Your task to perform on an android device: Add acer predator to the cart on bestbuy.com Image 0: 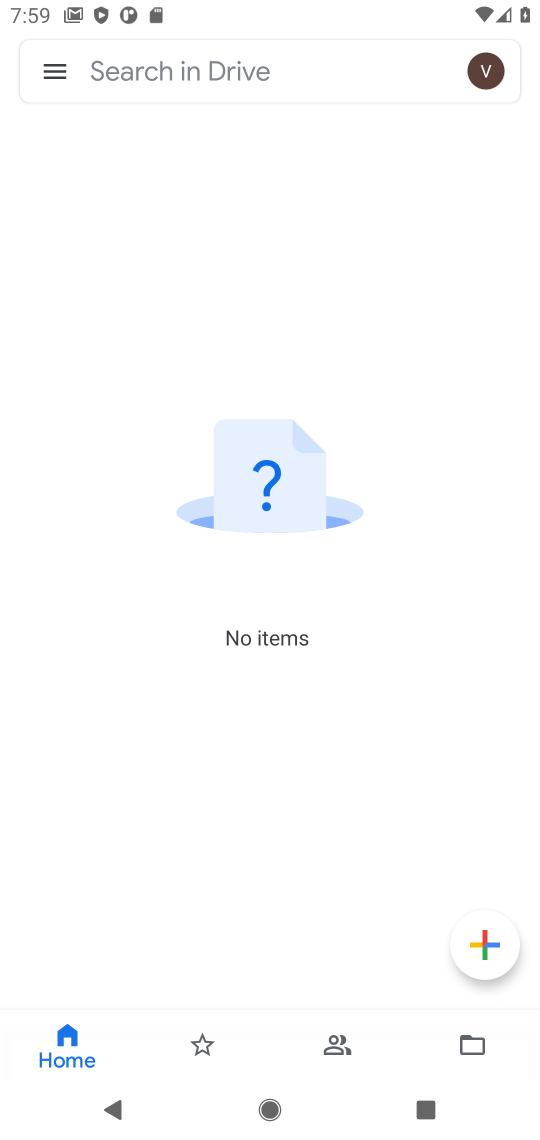
Step 0: press home button
Your task to perform on an android device: Add acer predator to the cart on bestbuy.com Image 1: 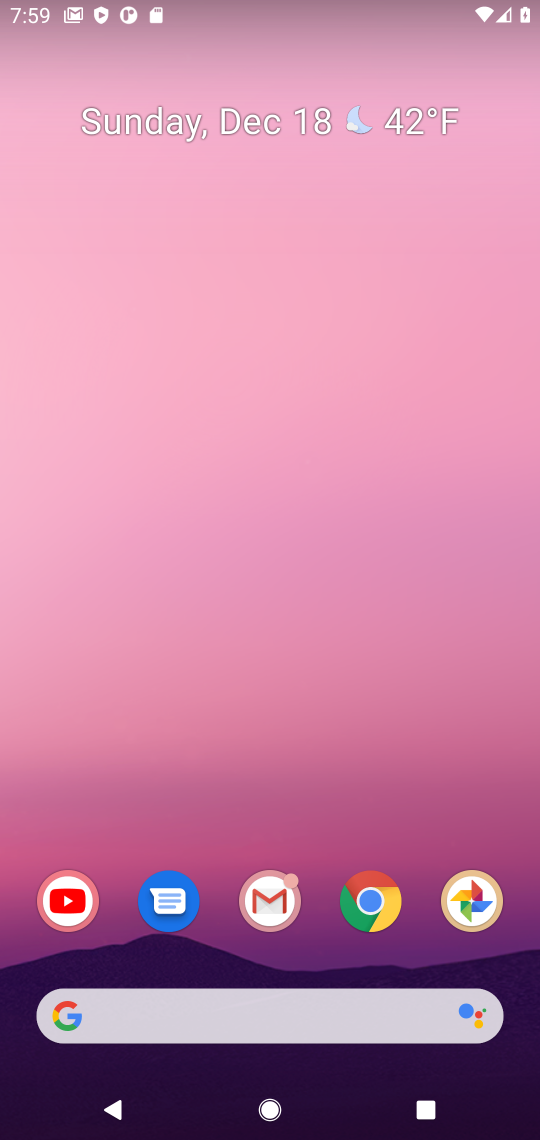
Step 1: click (340, 1002)
Your task to perform on an android device: Add acer predator to the cart on bestbuy.com Image 2: 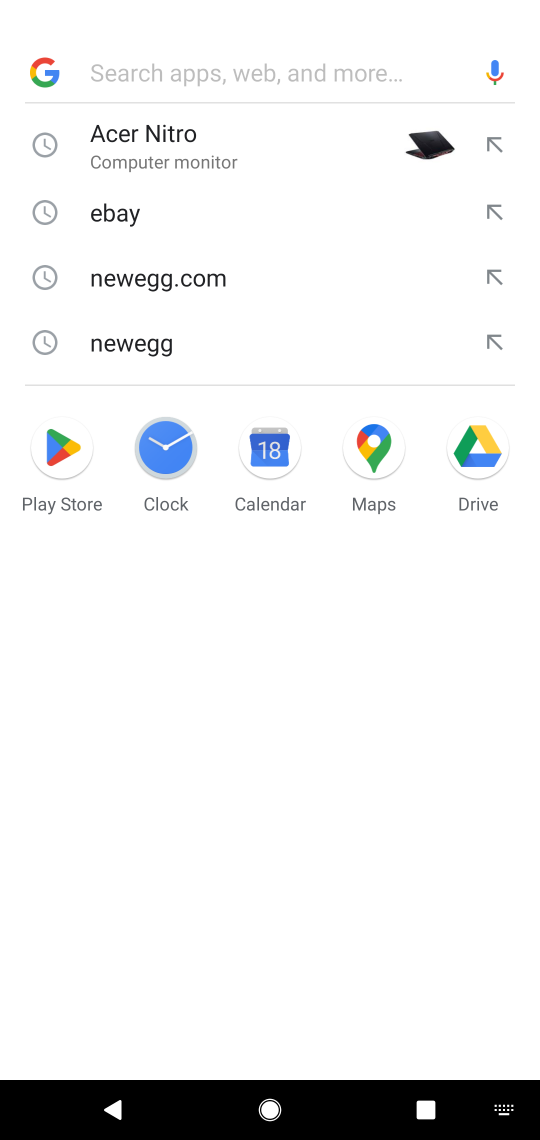
Step 2: type "bestbuy"
Your task to perform on an android device: Add acer predator to the cart on bestbuy.com Image 3: 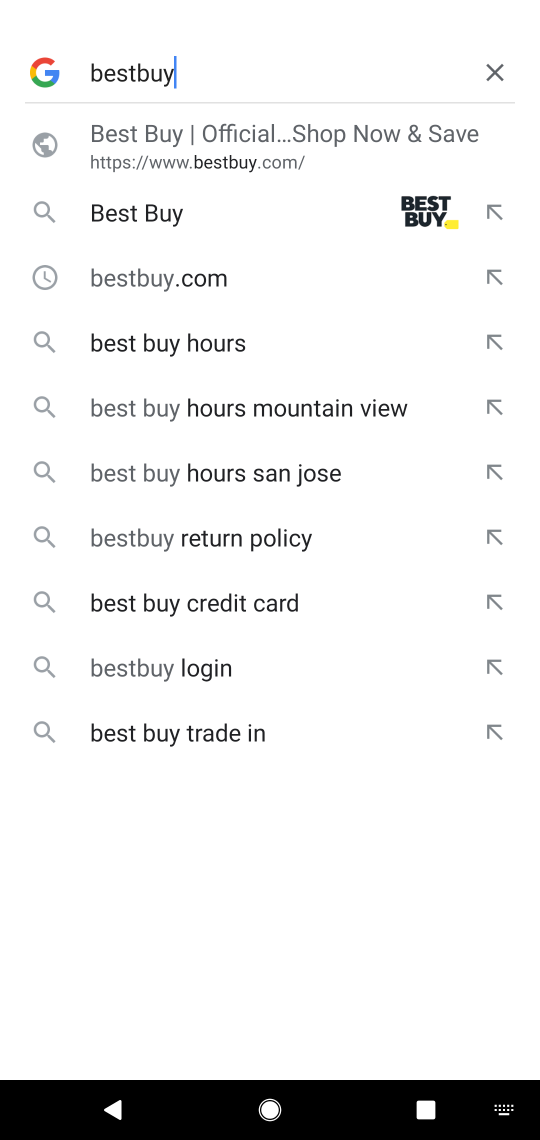
Step 3: click (104, 168)
Your task to perform on an android device: Add acer predator to the cart on bestbuy.com Image 4: 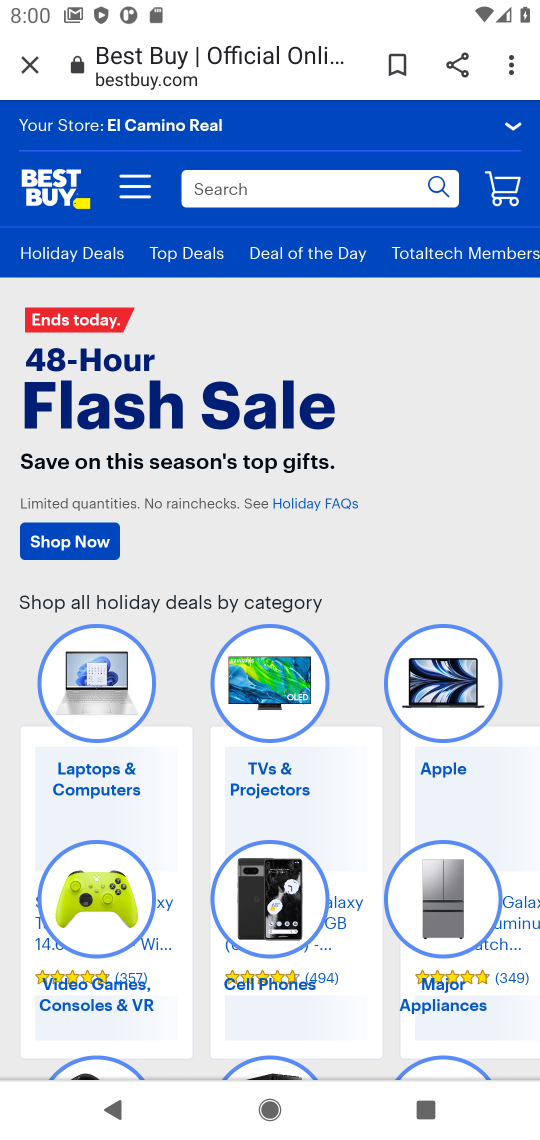
Step 4: click (231, 179)
Your task to perform on an android device: Add acer predator to the cart on bestbuy.com Image 5: 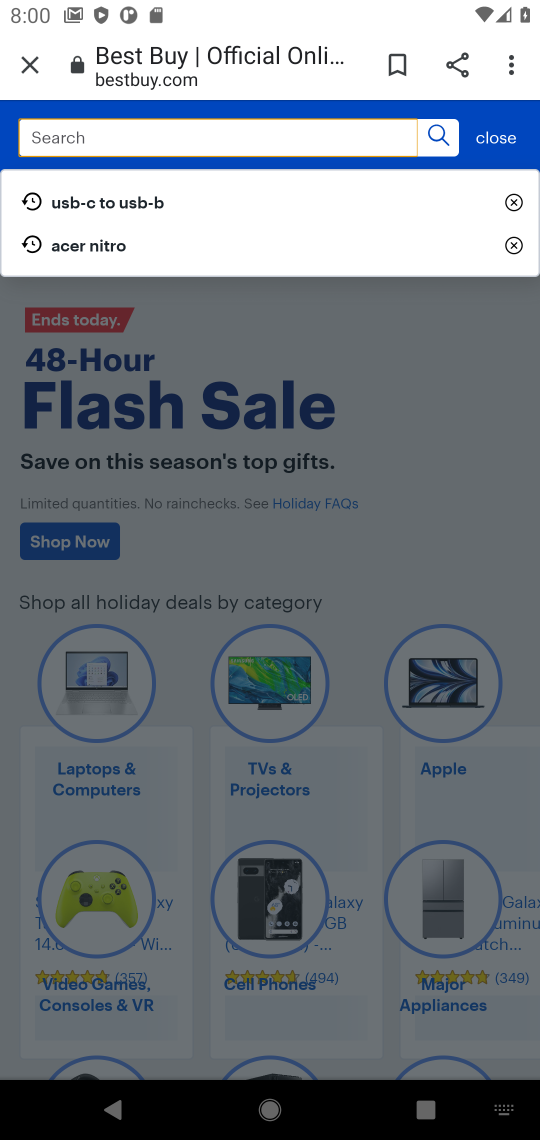
Step 5: type "predator"
Your task to perform on an android device: Add acer predator to the cart on bestbuy.com Image 6: 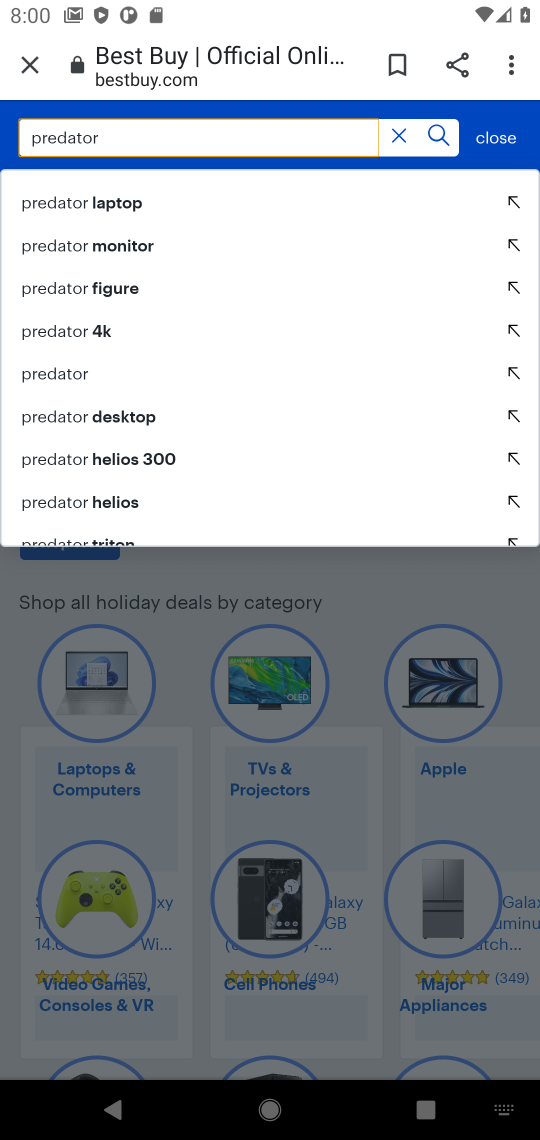
Step 6: click (187, 212)
Your task to perform on an android device: Add acer predator to the cart on bestbuy.com Image 7: 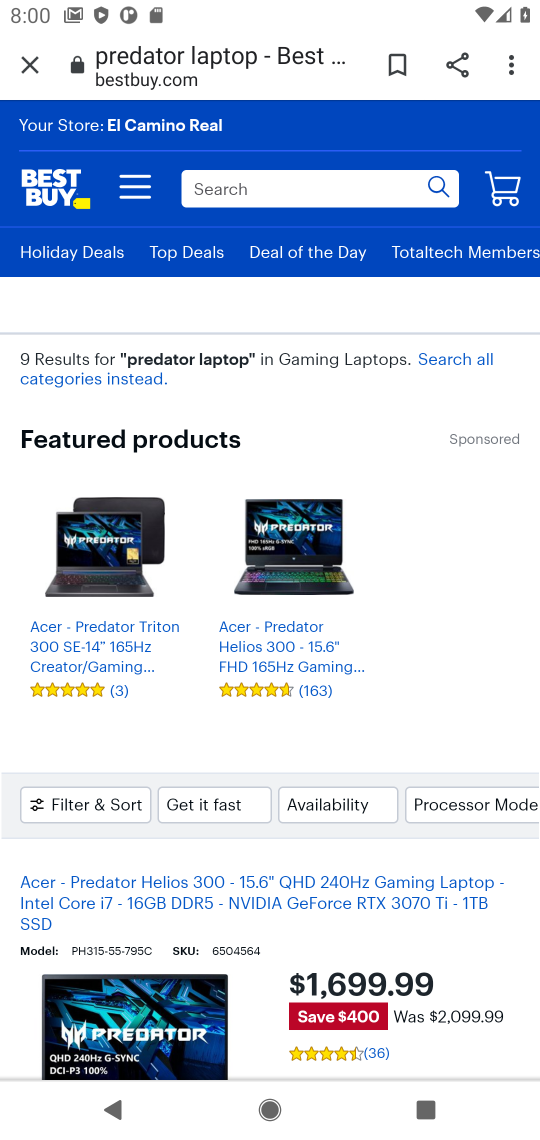
Step 7: click (218, 987)
Your task to perform on an android device: Add acer predator to the cart on bestbuy.com Image 8: 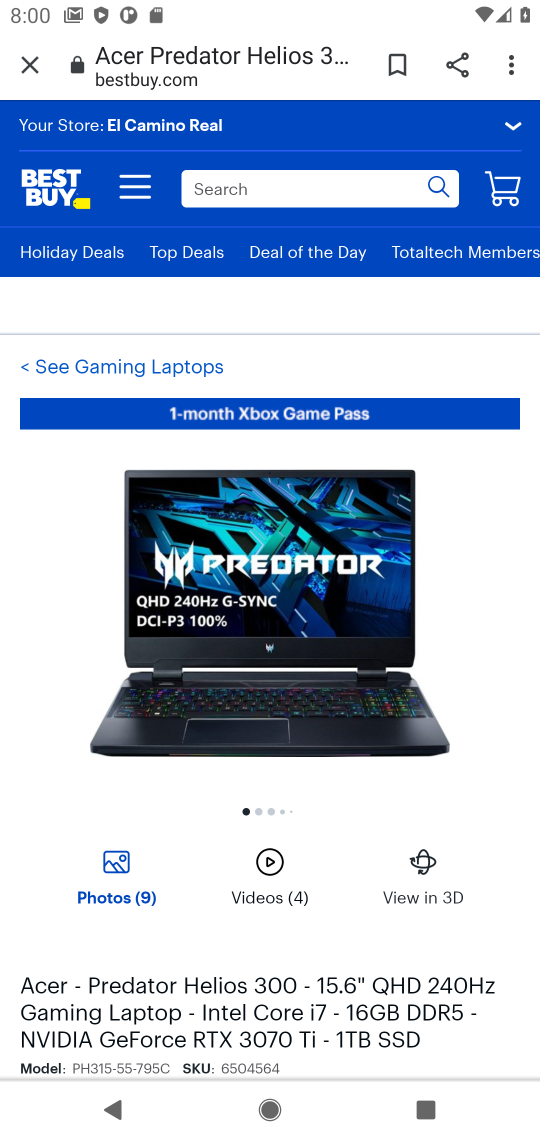
Step 8: click (356, 1012)
Your task to perform on an android device: Add acer predator to the cart on bestbuy.com Image 9: 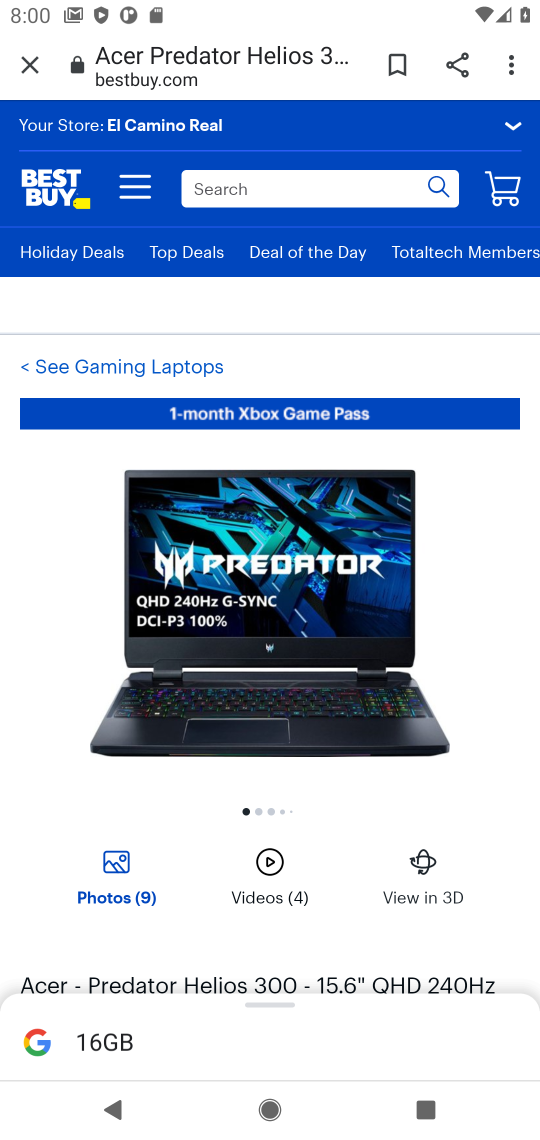
Step 9: task complete